Your task to perform on an android device: Open Android settings Image 0: 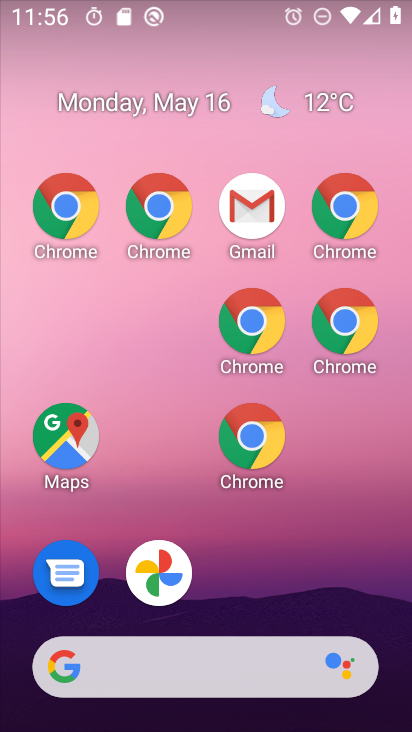
Step 0: drag from (381, 592) to (172, 237)
Your task to perform on an android device: Open Android settings Image 1: 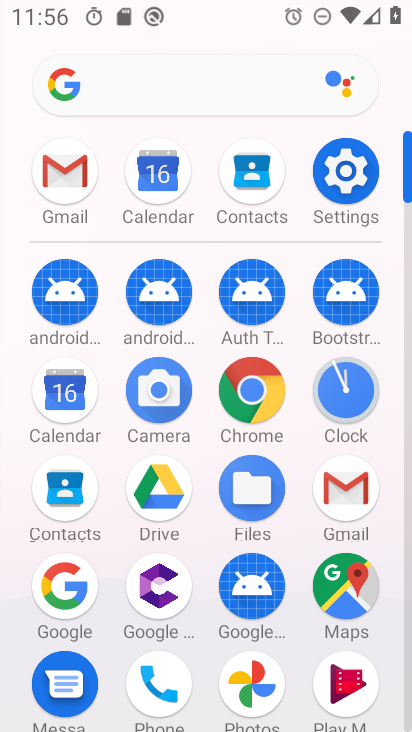
Step 1: click (339, 179)
Your task to perform on an android device: Open Android settings Image 2: 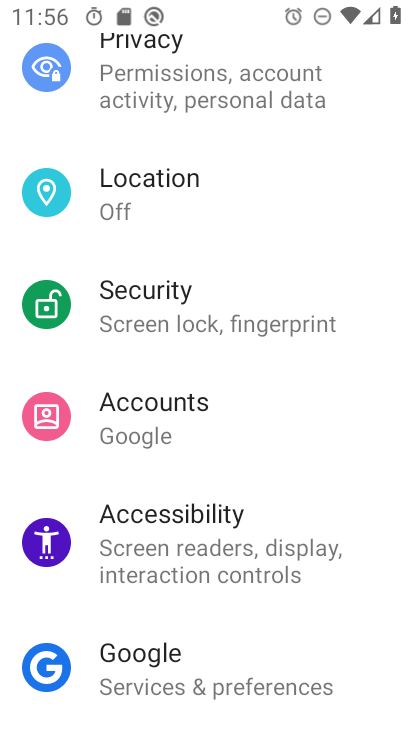
Step 2: drag from (265, 571) to (172, 276)
Your task to perform on an android device: Open Android settings Image 3: 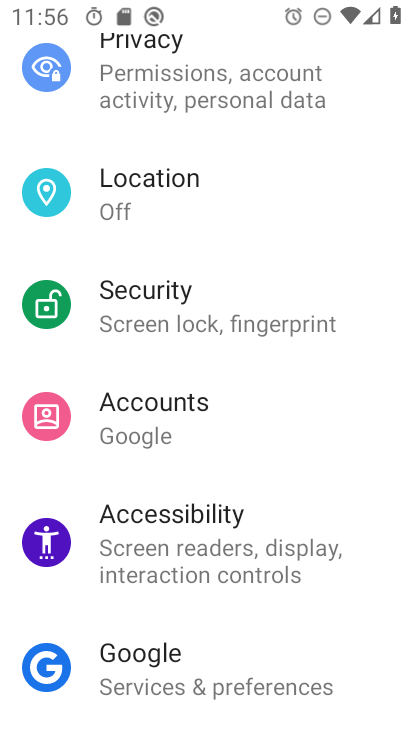
Step 3: drag from (263, 402) to (245, 35)
Your task to perform on an android device: Open Android settings Image 4: 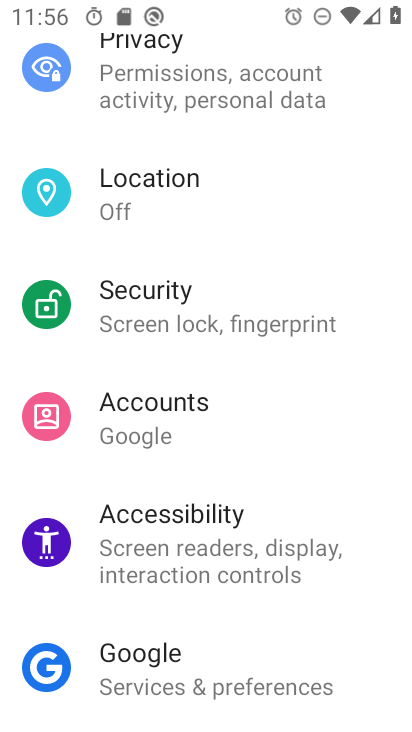
Step 4: drag from (294, 441) to (227, 110)
Your task to perform on an android device: Open Android settings Image 5: 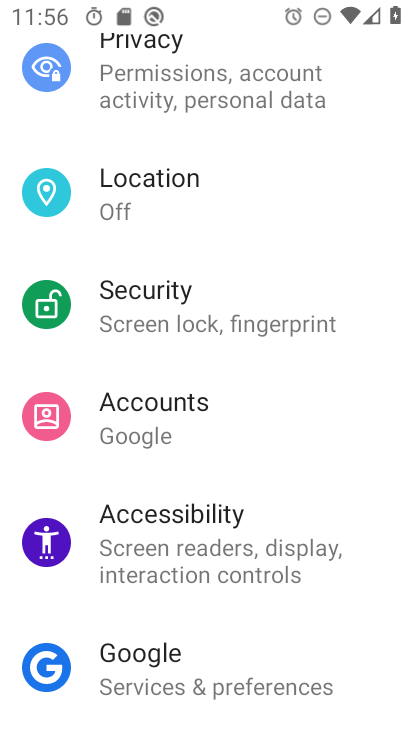
Step 5: drag from (240, 595) to (213, 87)
Your task to perform on an android device: Open Android settings Image 6: 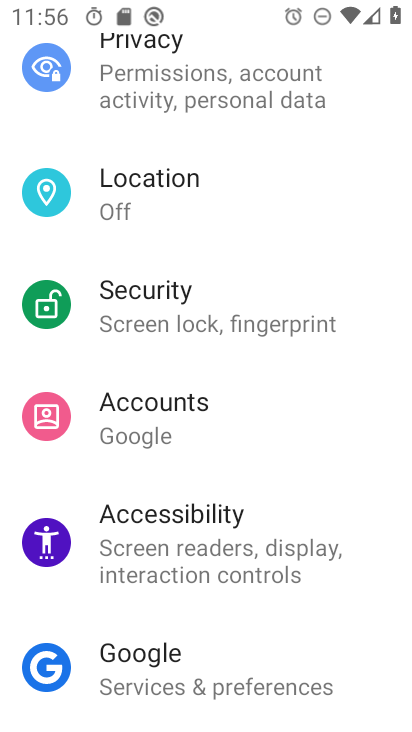
Step 6: click (47, 2)
Your task to perform on an android device: Open Android settings Image 7: 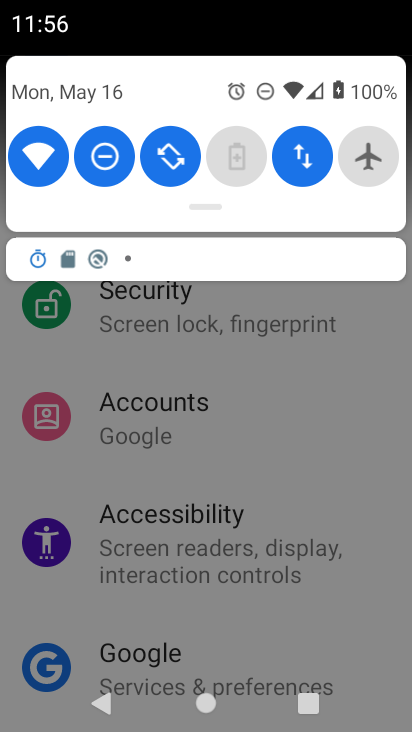
Step 7: drag from (122, 532) to (138, 81)
Your task to perform on an android device: Open Android settings Image 8: 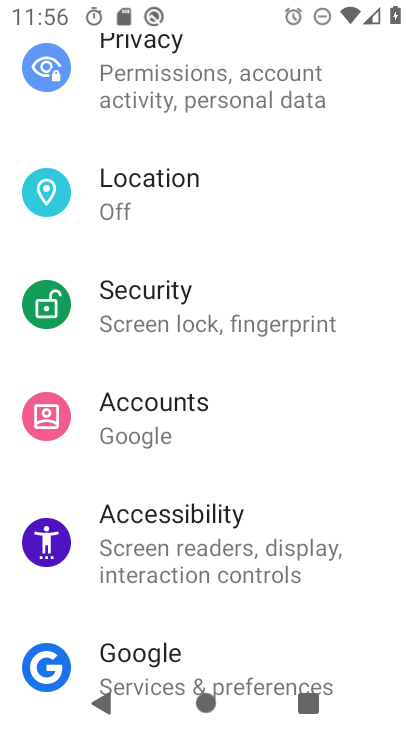
Step 8: drag from (292, 492) to (197, 120)
Your task to perform on an android device: Open Android settings Image 9: 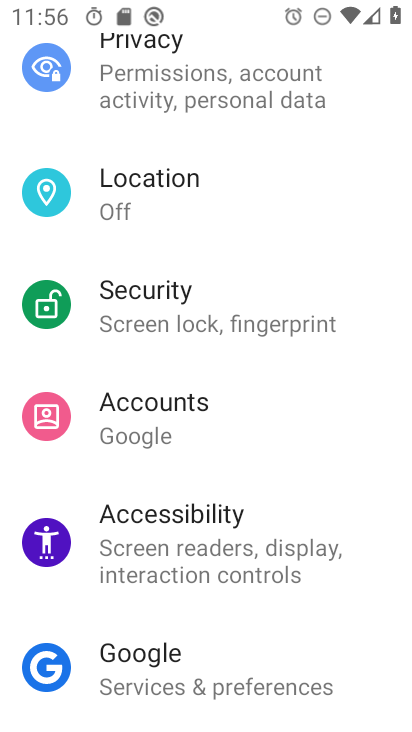
Step 9: drag from (254, 581) to (263, 211)
Your task to perform on an android device: Open Android settings Image 10: 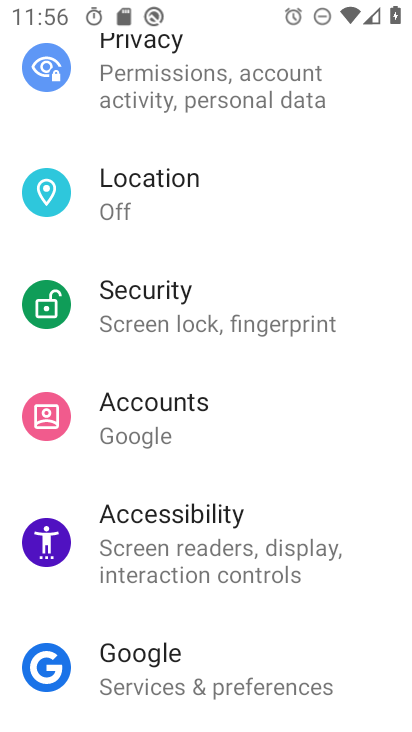
Step 10: drag from (247, 561) to (218, 256)
Your task to perform on an android device: Open Android settings Image 11: 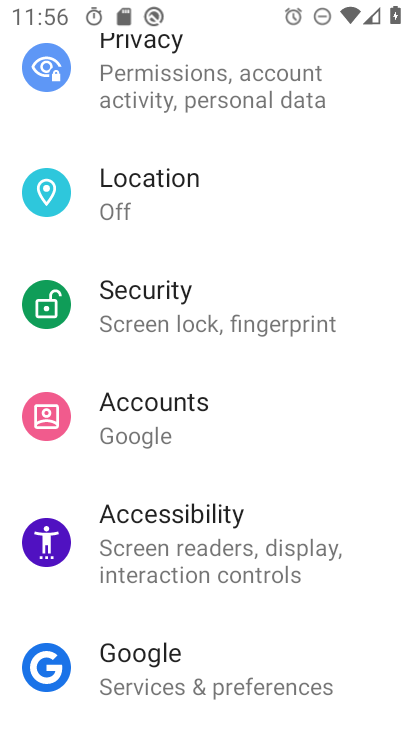
Step 11: drag from (258, 512) to (217, 274)
Your task to perform on an android device: Open Android settings Image 12: 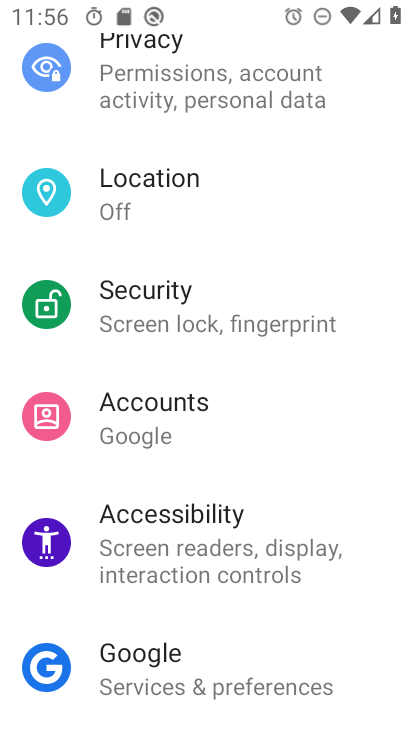
Step 12: drag from (270, 432) to (174, 156)
Your task to perform on an android device: Open Android settings Image 13: 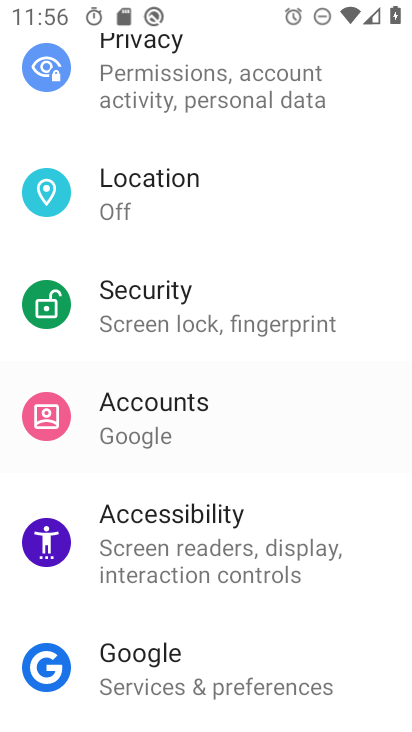
Step 13: drag from (264, 468) to (236, 16)
Your task to perform on an android device: Open Android settings Image 14: 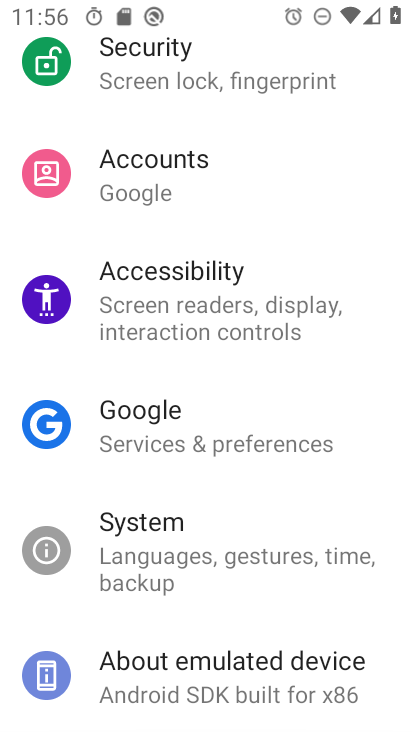
Step 14: drag from (231, 560) to (251, 197)
Your task to perform on an android device: Open Android settings Image 15: 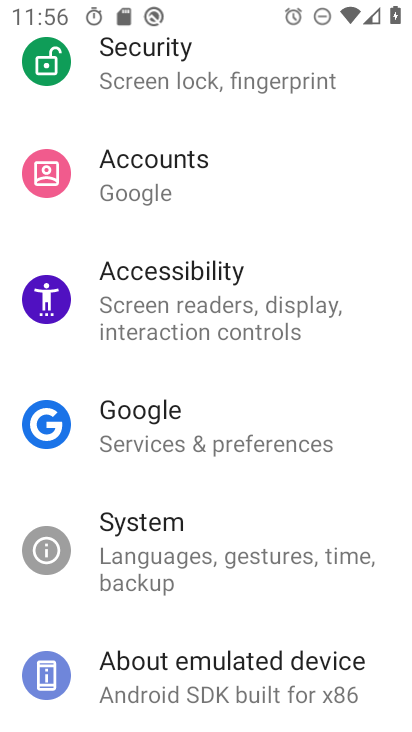
Step 15: click (228, 670)
Your task to perform on an android device: Open Android settings Image 16: 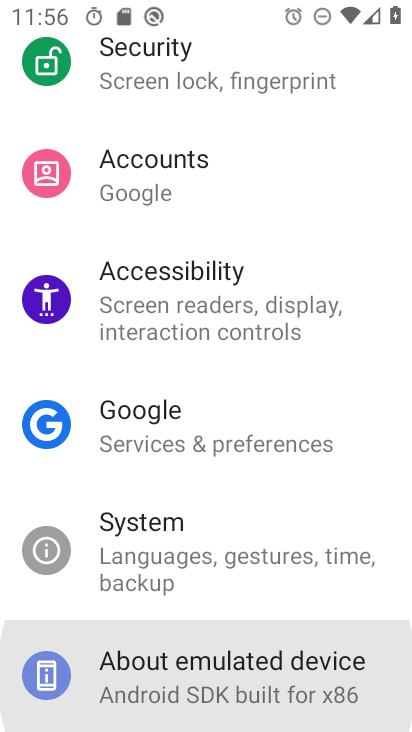
Step 16: click (221, 658)
Your task to perform on an android device: Open Android settings Image 17: 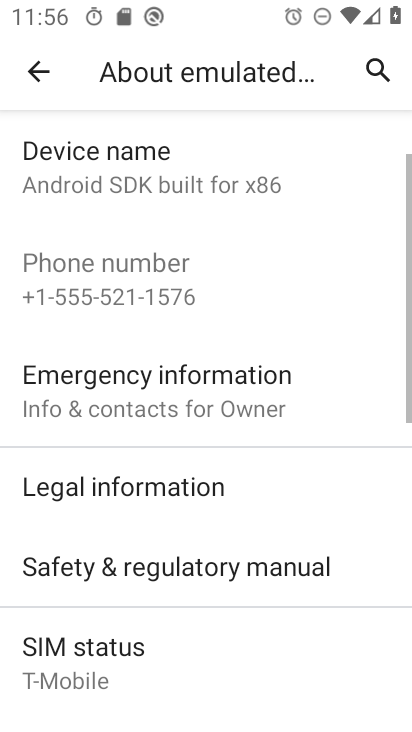
Step 17: task complete